Your task to perform on an android device: set an alarm Image 0: 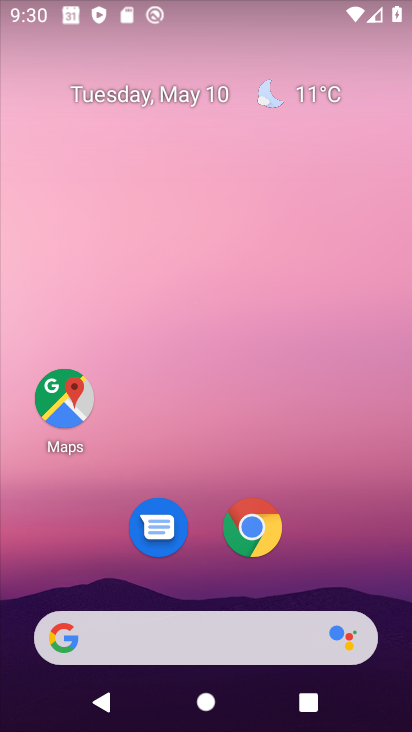
Step 0: drag from (355, 490) to (195, 0)
Your task to perform on an android device: set an alarm Image 1: 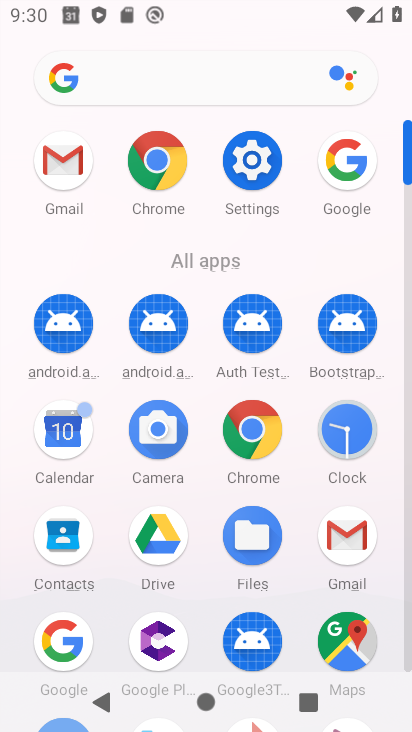
Step 1: click (382, 431)
Your task to perform on an android device: set an alarm Image 2: 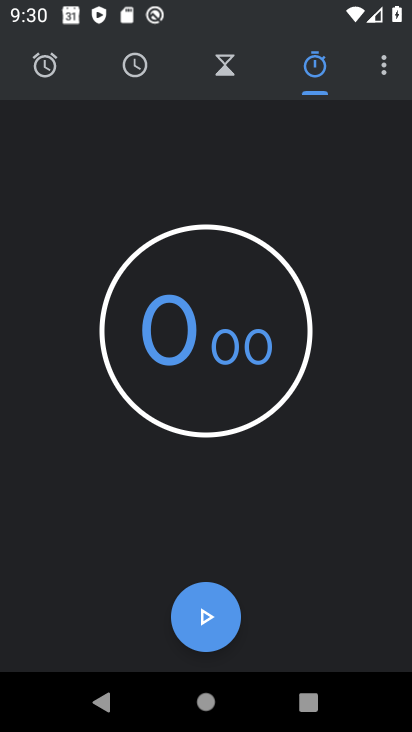
Step 2: click (40, 59)
Your task to perform on an android device: set an alarm Image 3: 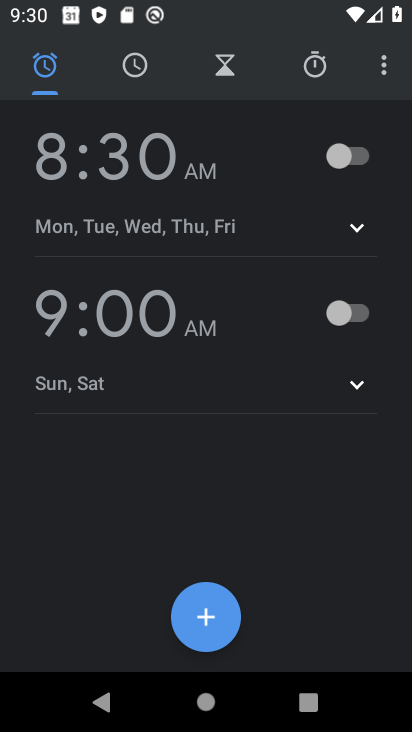
Step 3: click (339, 312)
Your task to perform on an android device: set an alarm Image 4: 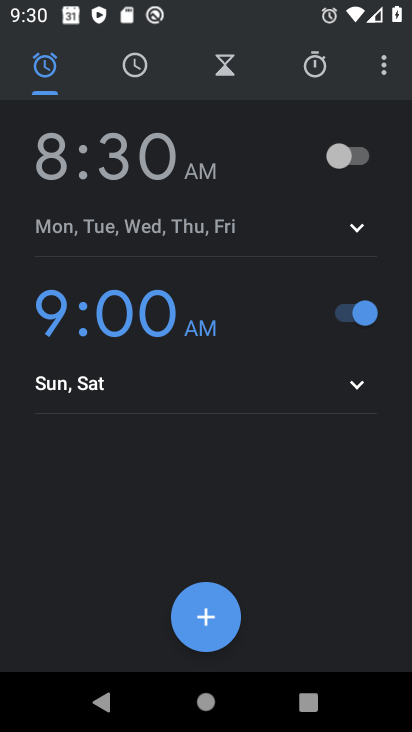
Step 4: task complete